Your task to perform on an android device: Go to notification settings Image 0: 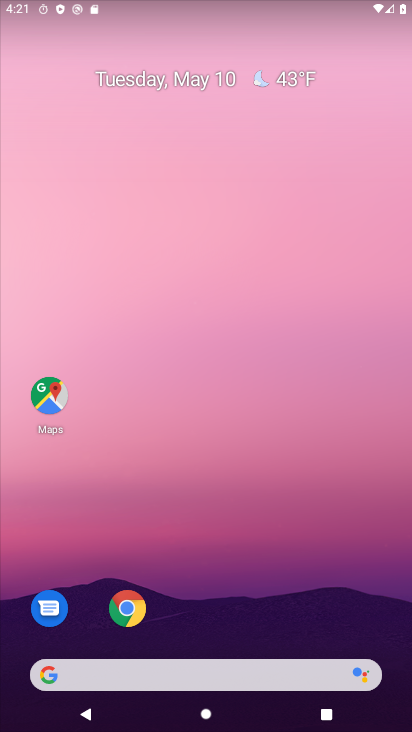
Step 0: drag from (267, 689) to (135, 198)
Your task to perform on an android device: Go to notification settings Image 1: 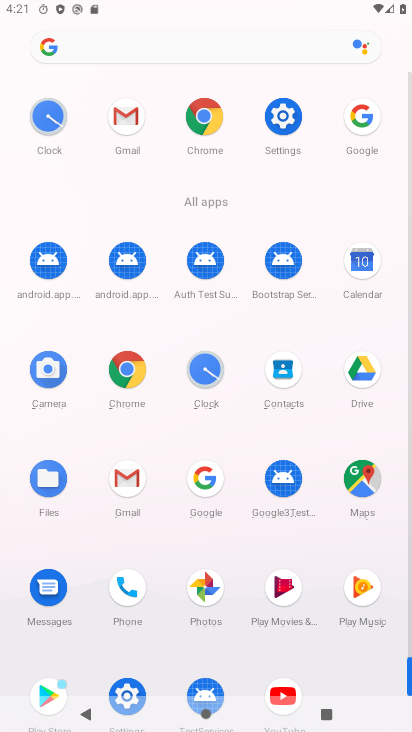
Step 1: click (290, 112)
Your task to perform on an android device: Go to notification settings Image 2: 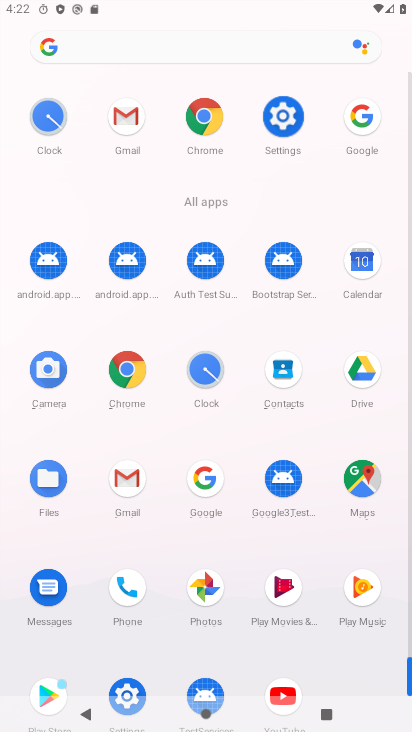
Step 2: click (290, 112)
Your task to perform on an android device: Go to notification settings Image 3: 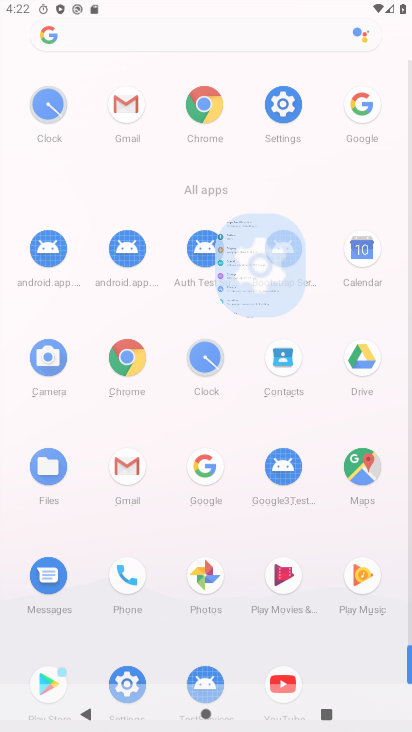
Step 3: click (290, 112)
Your task to perform on an android device: Go to notification settings Image 4: 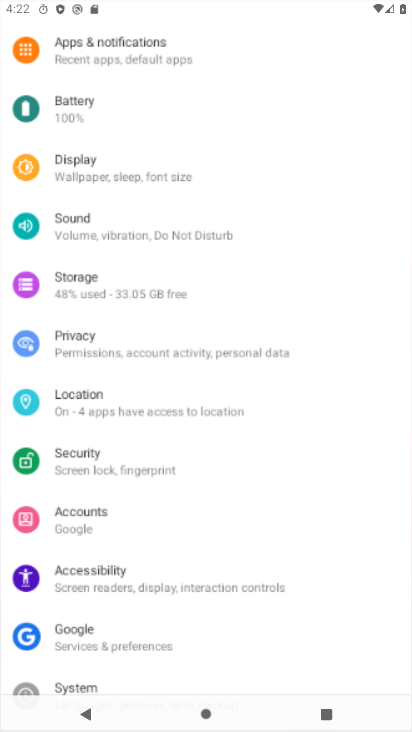
Step 4: click (290, 112)
Your task to perform on an android device: Go to notification settings Image 5: 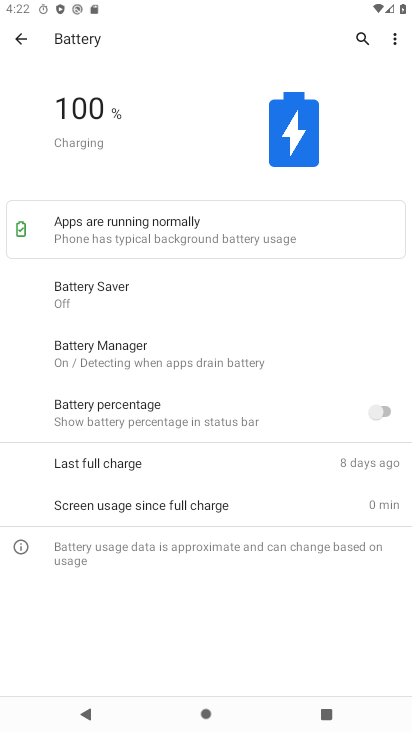
Step 5: click (11, 35)
Your task to perform on an android device: Go to notification settings Image 6: 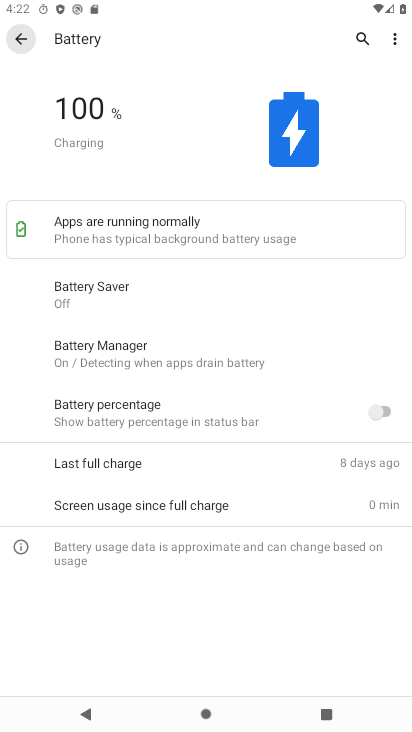
Step 6: click (14, 34)
Your task to perform on an android device: Go to notification settings Image 7: 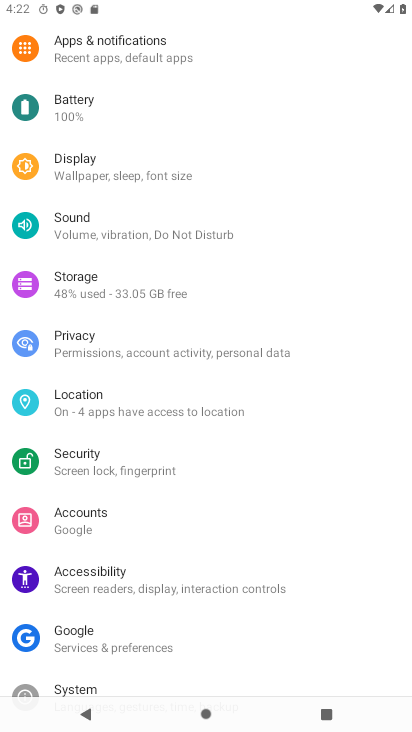
Step 7: click (110, 55)
Your task to perform on an android device: Go to notification settings Image 8: 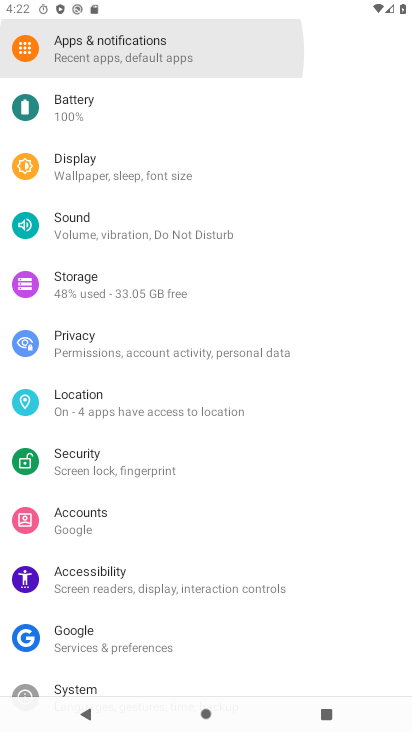
Step 8: click (111, 52)
Your task to perform on an android device: Go to notification settings Image 9: 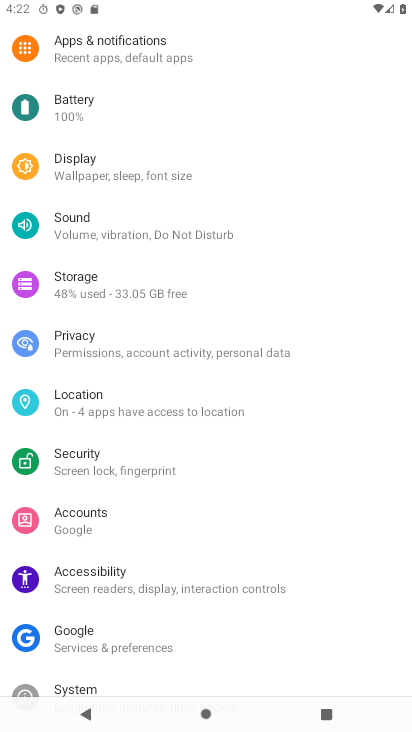
Step 9: click (112, 51)
Your task to perform on an android device: Go to notification settings Image 10: 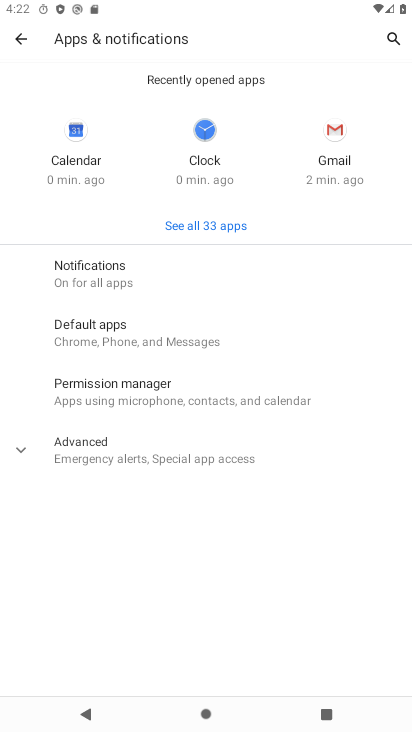
Step 10: click (91, 276)
Your task to perform on an android device: Go to notification settings Image 11: 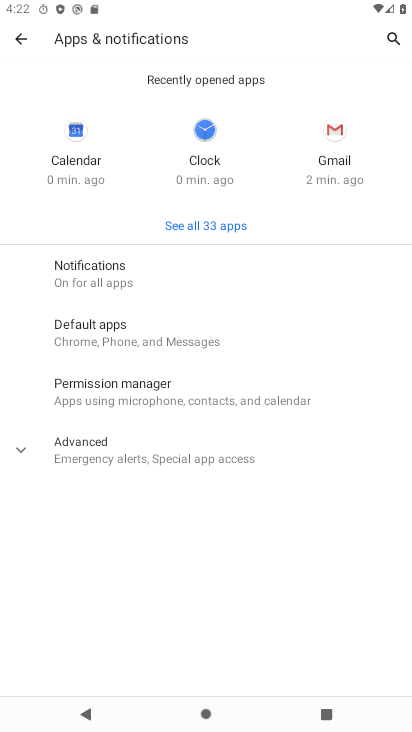
Step 11: click (97, 282)
Your task to perform on an android device: Go to notification settings Image 12: 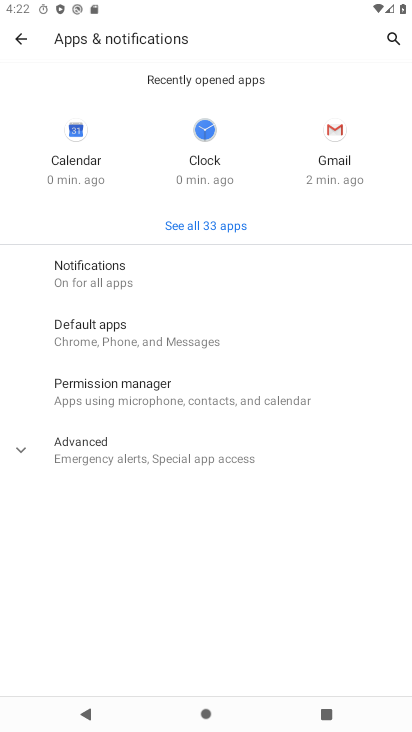
Step 12: click (97, 282)
Your task to perform on an android device: Go to notification settings Image 13: 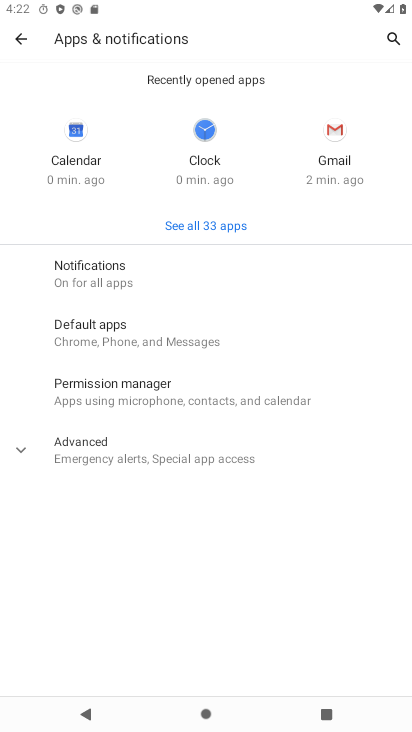
Step 13: click (97, 282)
Your task to perform on an android device: Go to notification settings Image 14: 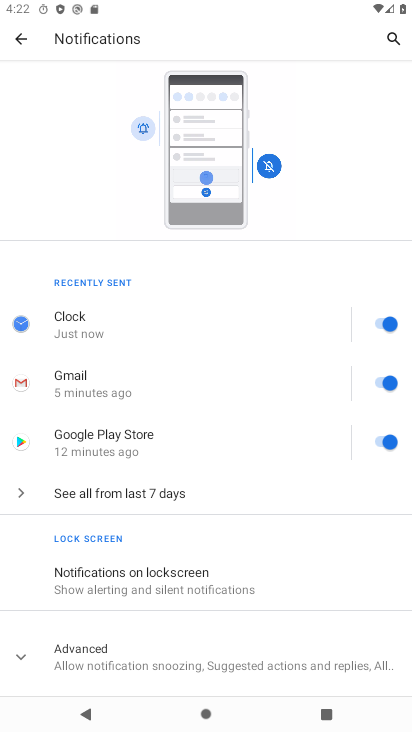
Step 14: task complete